Your task to perform on an android device: manage bookmarks in the chrome app Image 0: 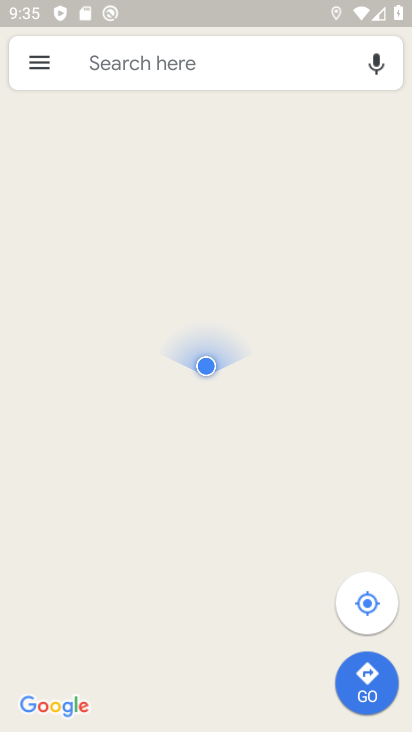
Step 0: press home button
Your task to perform on an android device: manage bookmarks in the chrome app Image 1: 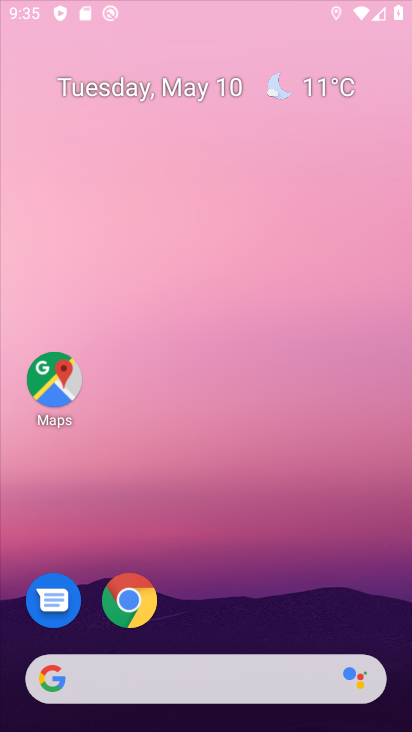
Step 1: drag from (284, 565) to (262, 93)
Your task to perform on an android device: manage bookmarks in the chrome app Image 2: 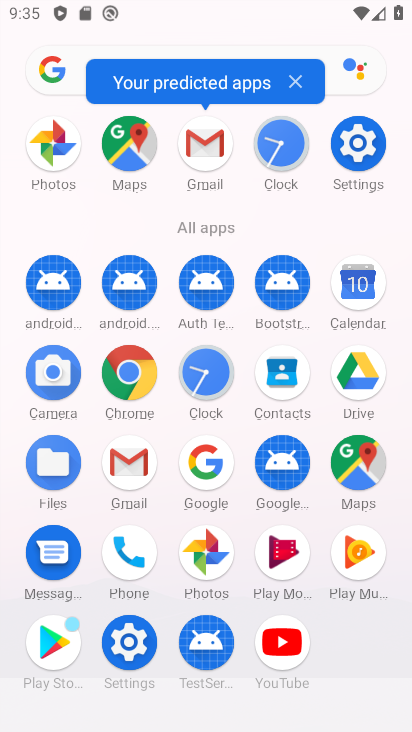
Step 2: click (134, 375)
Your task to perform on an android device: manage bookmarks in the chrome app Image 3: 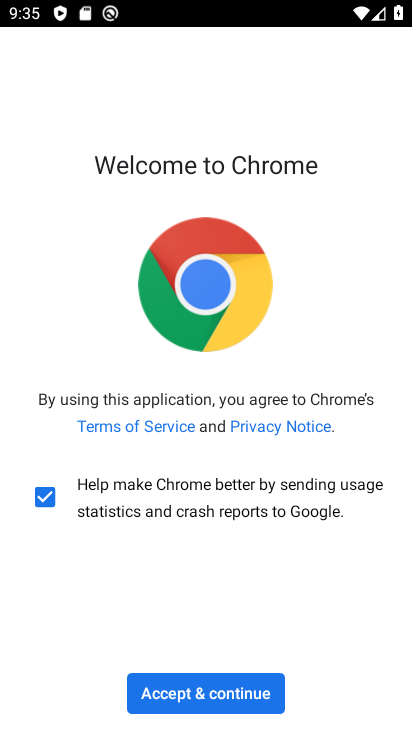
Step 3: click (242, 695)
Your task to perform on an android device: manage bookmarks in the chrome app Image 4: 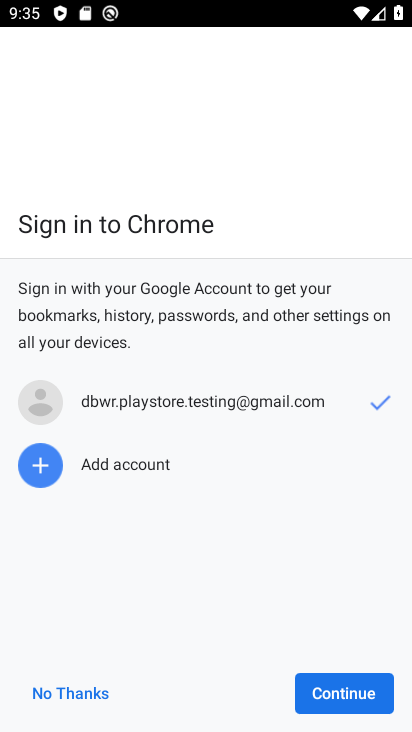
Step 4: click (108, 691)
Your task to perform on an android device: manage bookmarks in the chrome app Image 5: 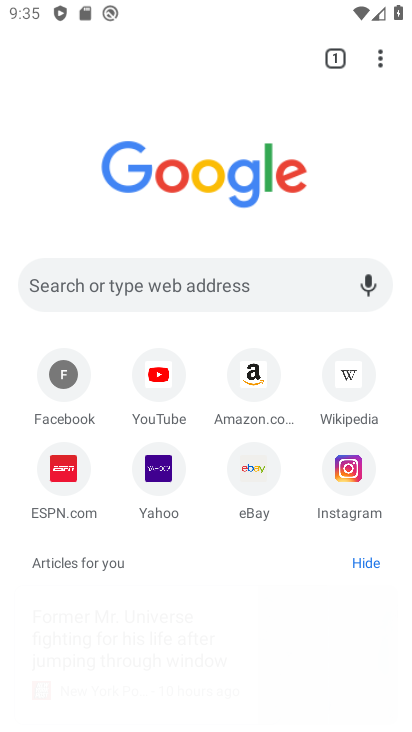
Step 5: drag from (375, 59) to (223, 238)
Your task to perform on an android device: manage bookmarks in the chrome app Image 6: 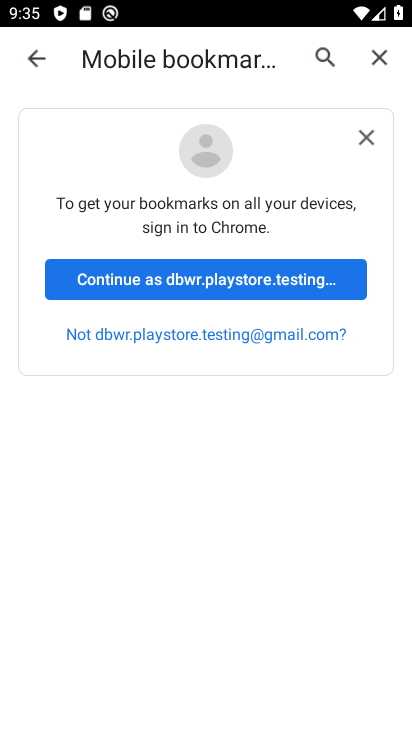
Step 6: click (229, 287)
Your task to perform on an android device: manage bookmarks in the chrome app Image 7: 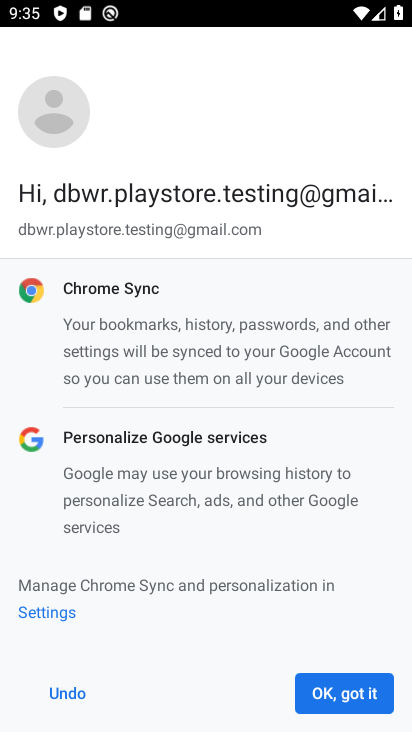
Step 7: click (360, 697)
Your task to perform on an android device: manage bookmarks in the chrome app Image 8: 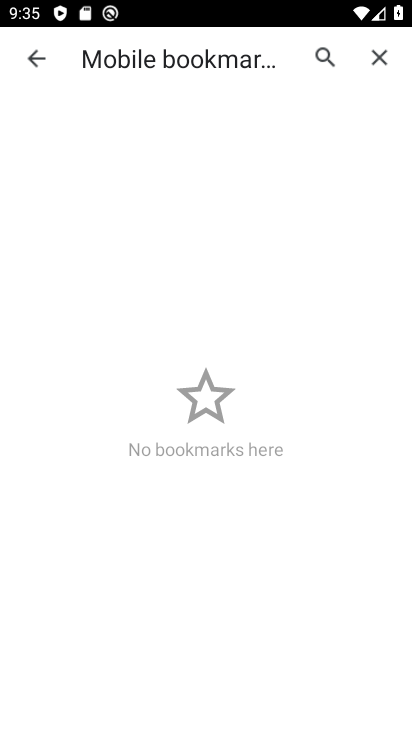
Step 8: task complete